Your task to perform on an android device: turn on data saver in the chrome app Image 0: 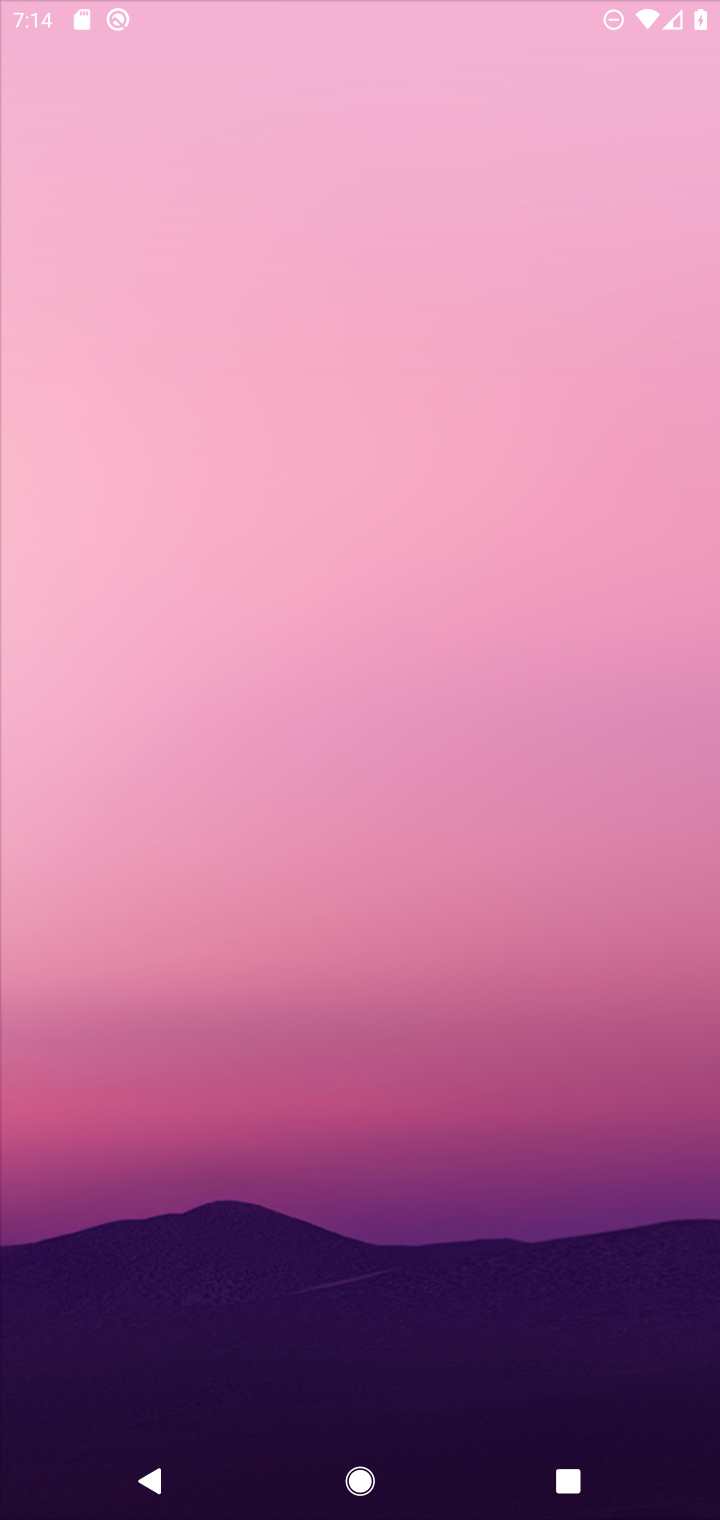
Step 0: press home button
Your task to perform on an android device: turn on data saver in the chrome app Image 1: 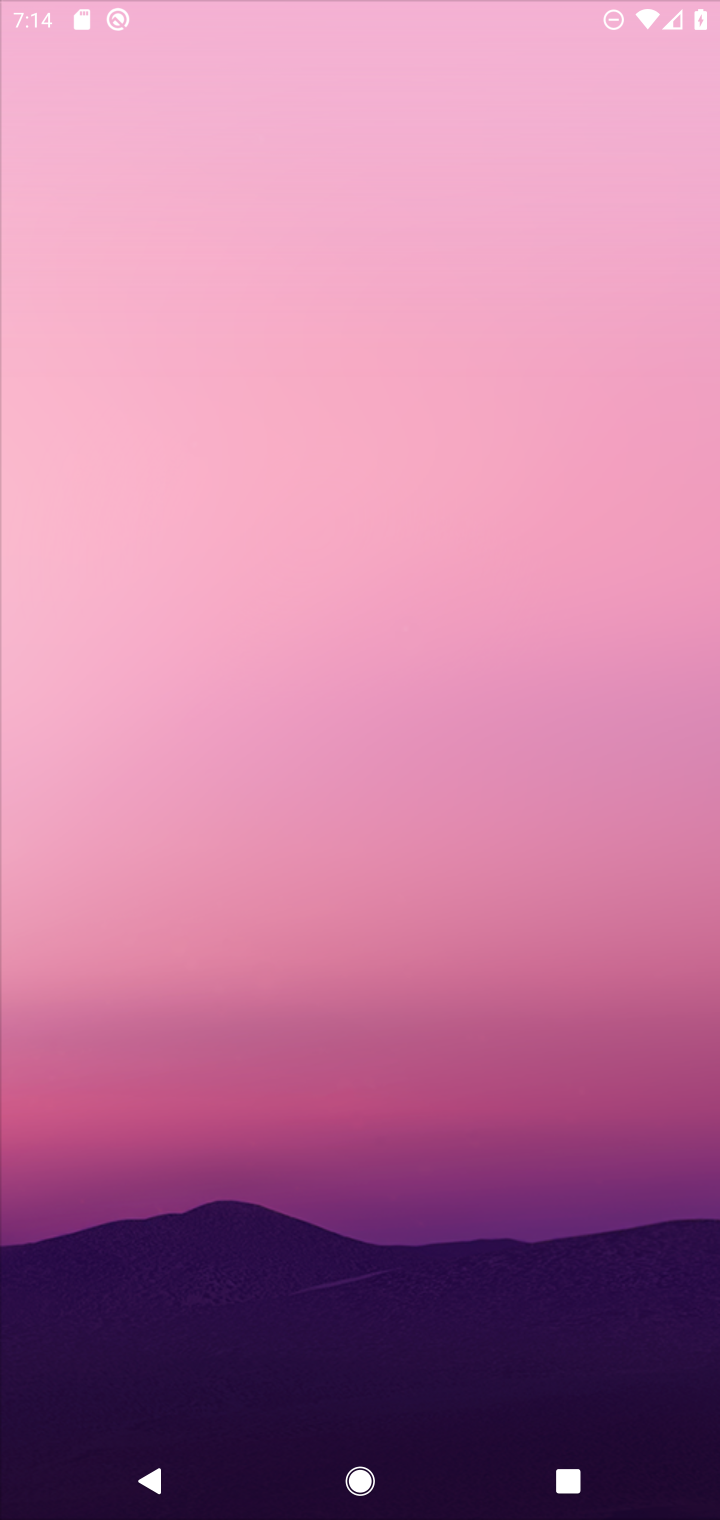
Step 1: click (30, 83)
Your task to perform on an android device: turn on data saver in the chrome app Image 2: 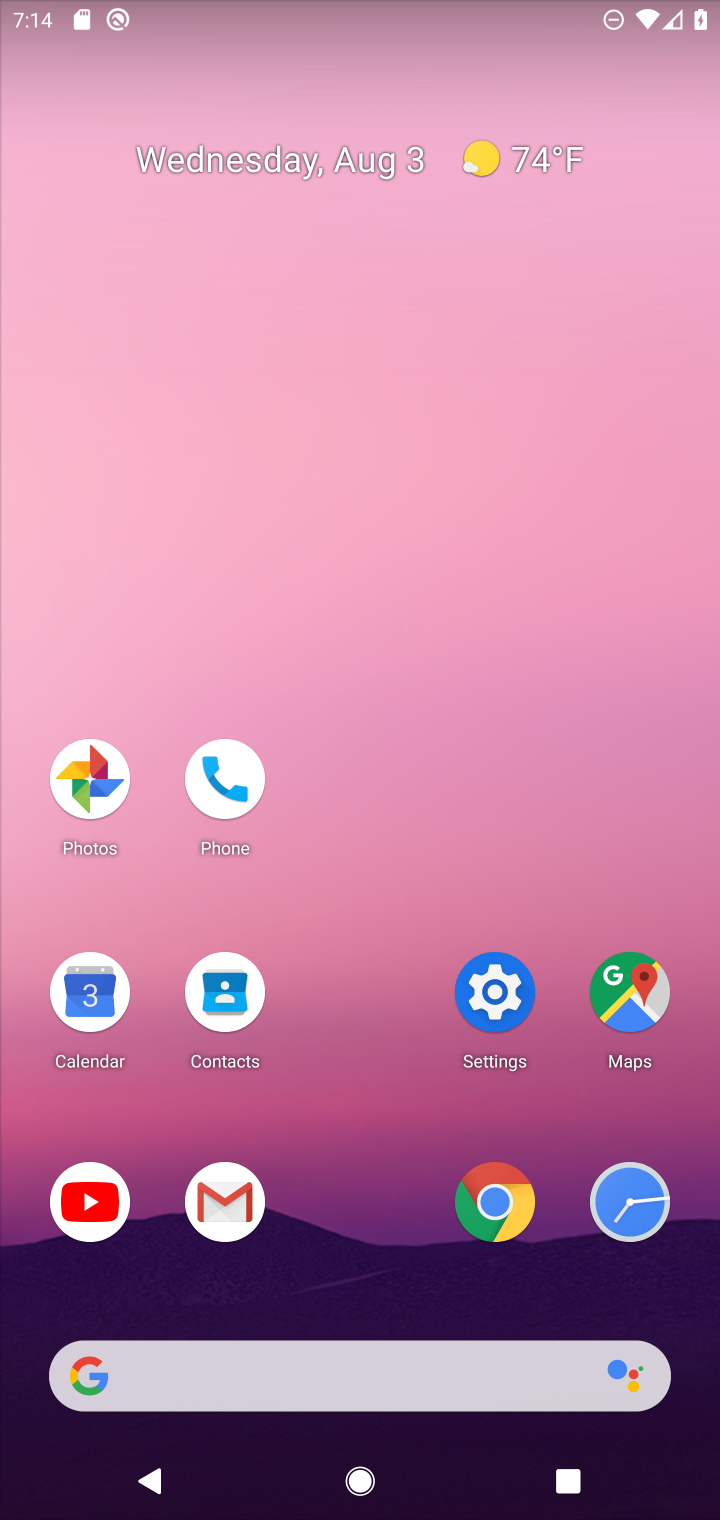
Step 2: click (497, 1212)
Your task to perform on an android device: turn on data saver in the chrome app Image 3: 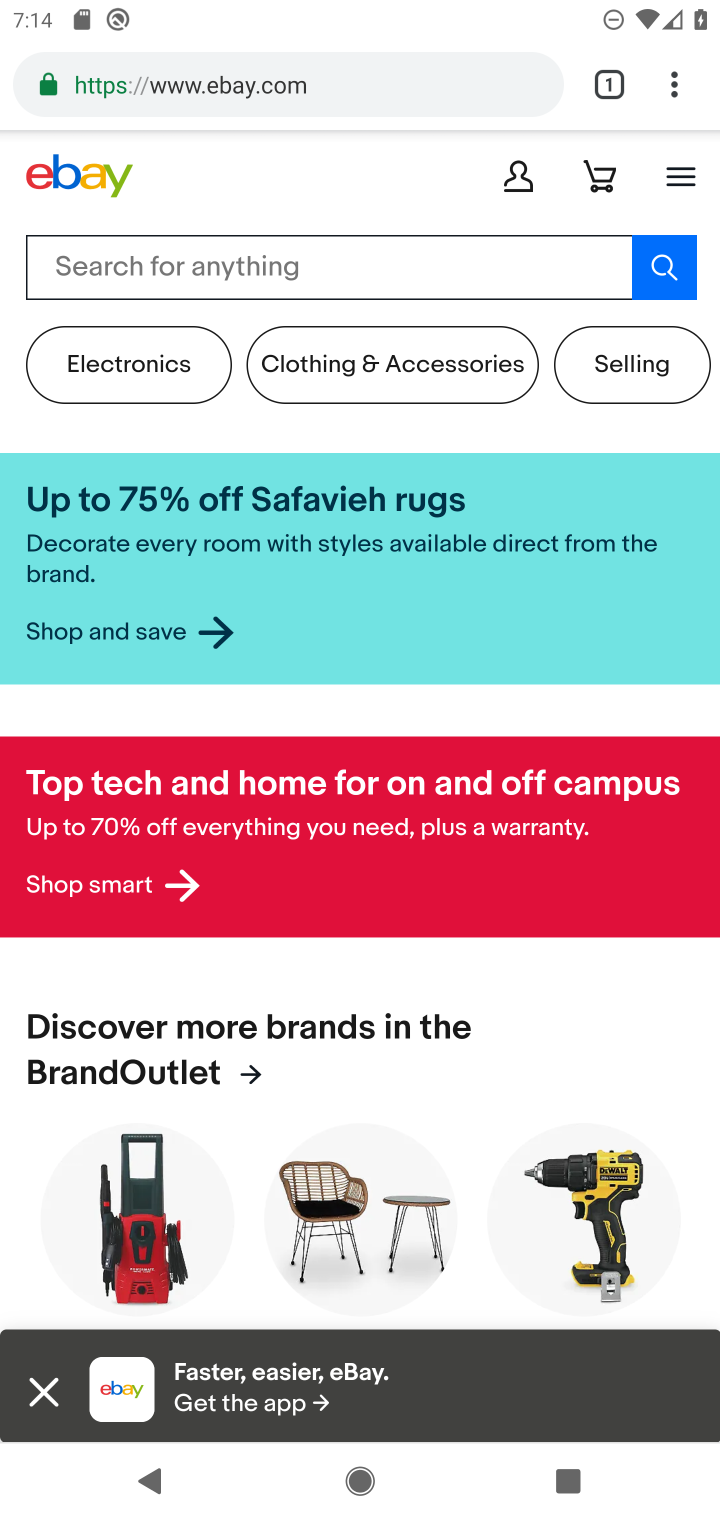
Step 3: click (672, 84)
Your task to perform on an android device: turn on data saver in the chrome app Image 4: 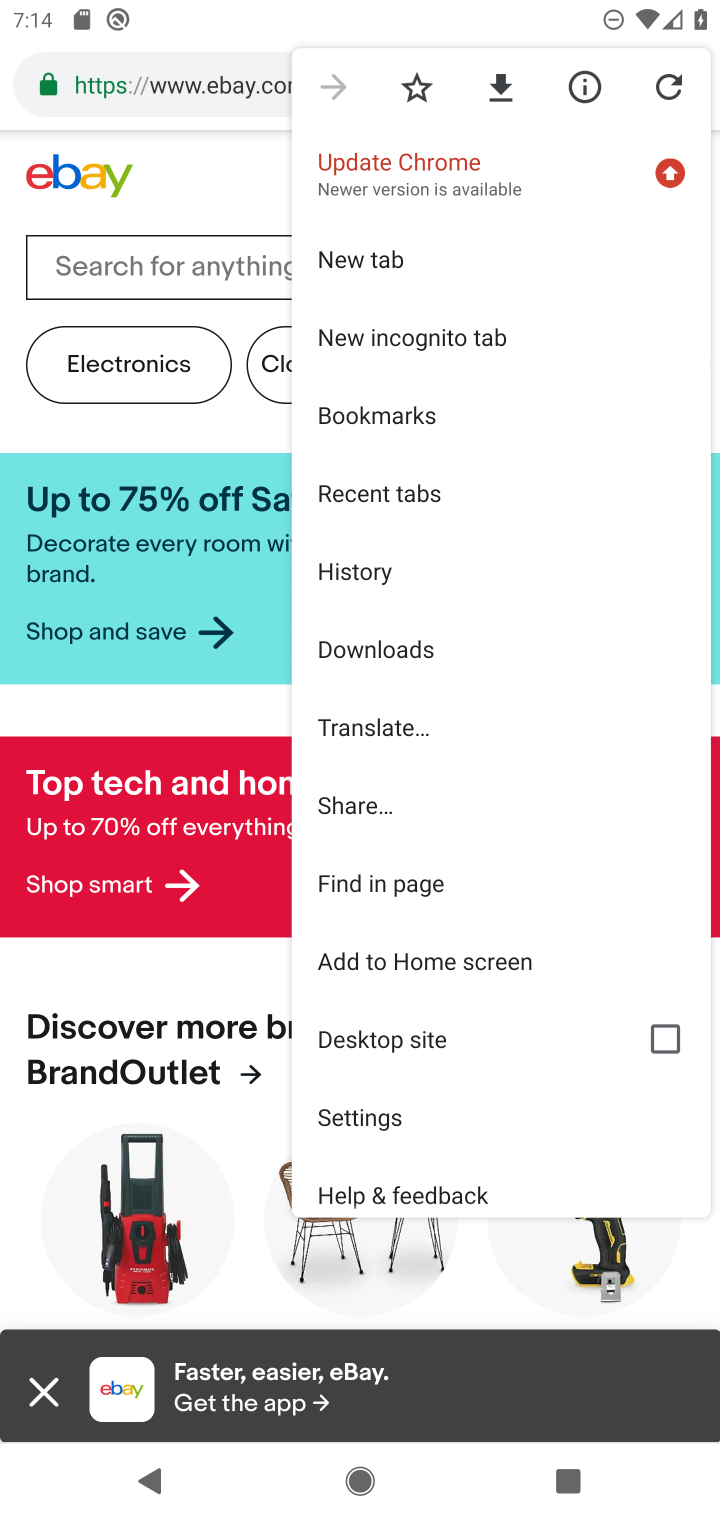
Step 4: click (343, 1119)
Your task to perform on an android device: turn on data saver in the chrome app Image 5: 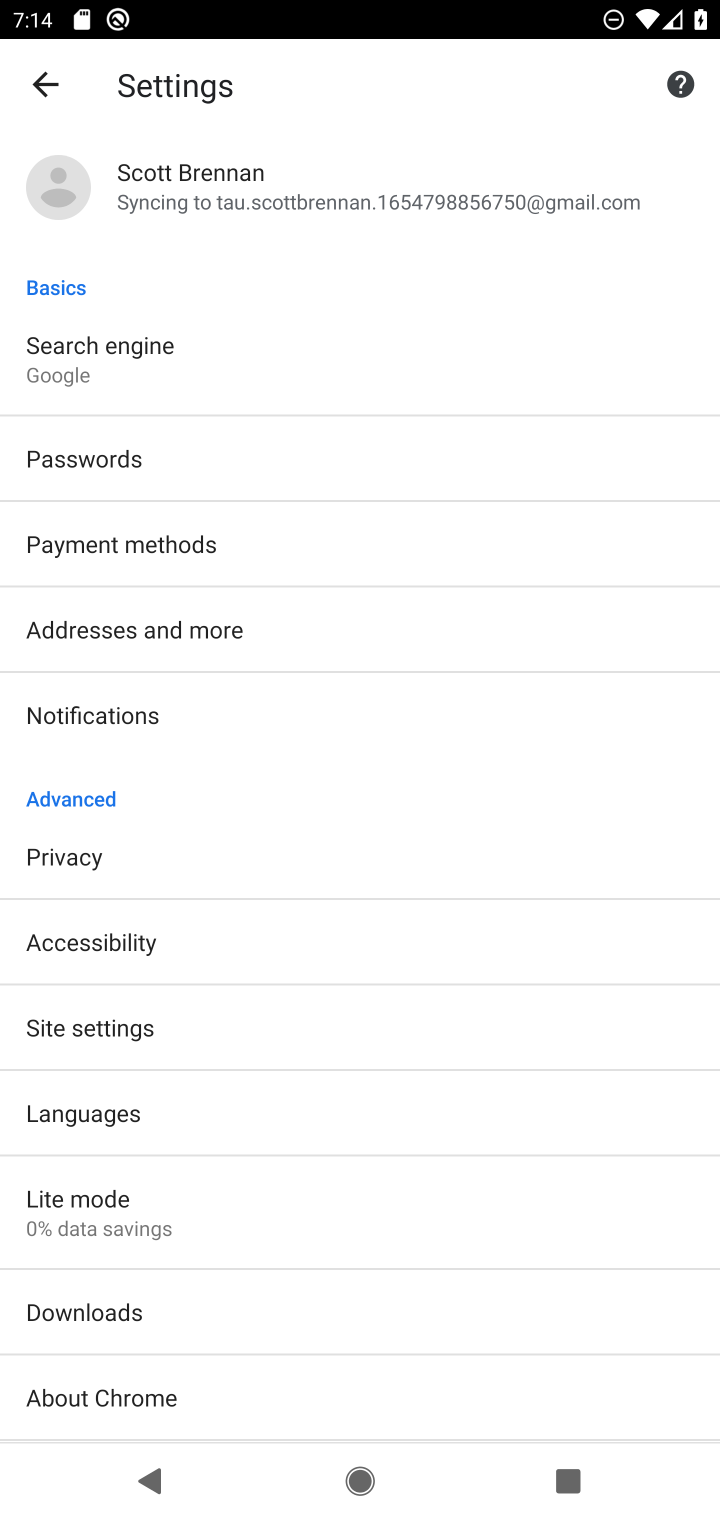
Step 5: click (116, 1208)
Your task to perform on an android device: turn on data saver in the chrome app Image 6: 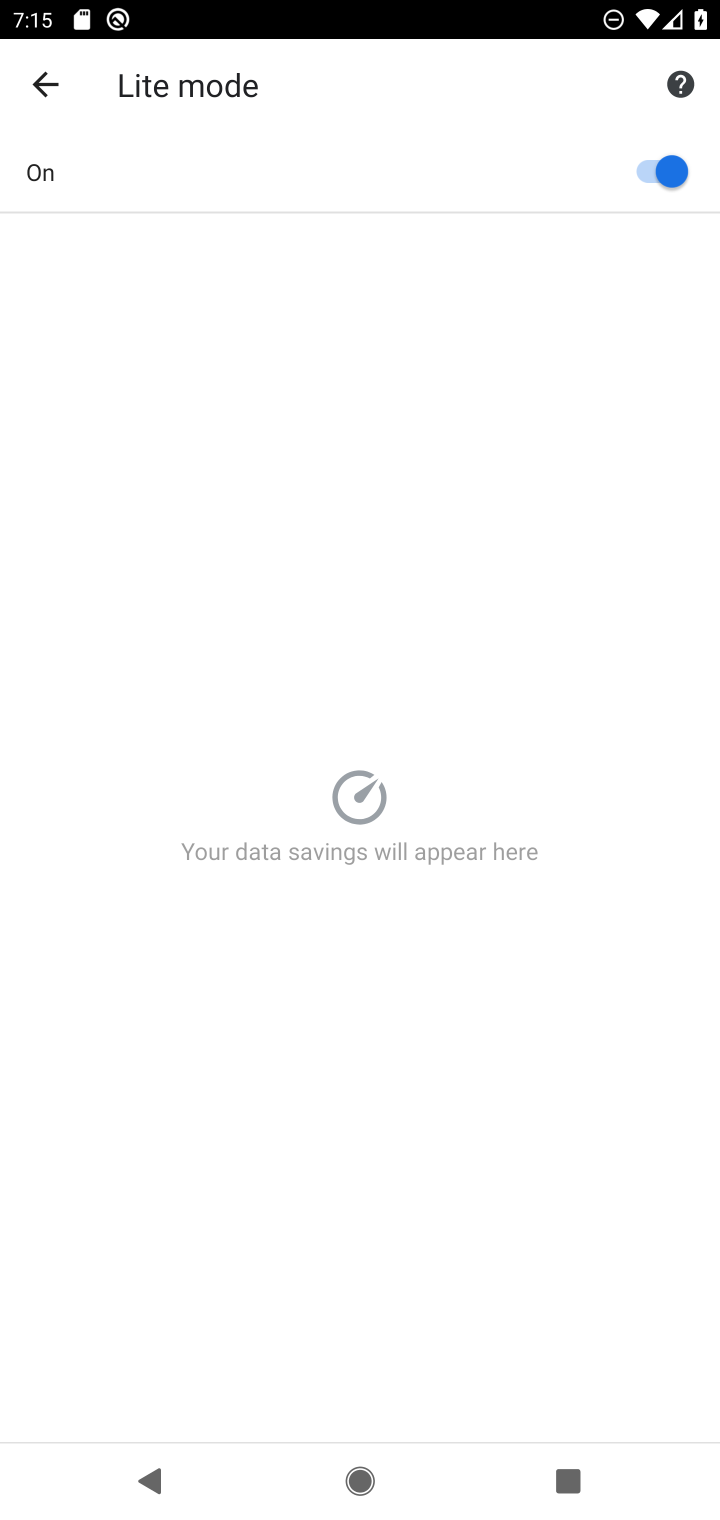
Step 6: task complete